Your task to perform on an android device: change your default location settings in chrome Image 0: 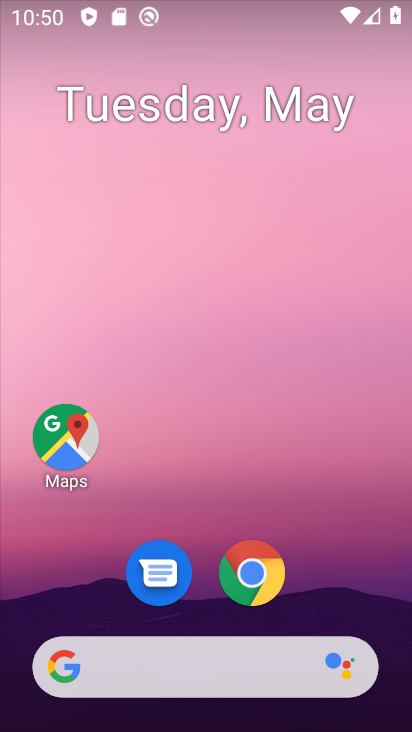
Step 0: click (262, 582)
Your task to perform on an android device: change your default location settings in chrome Image 1: 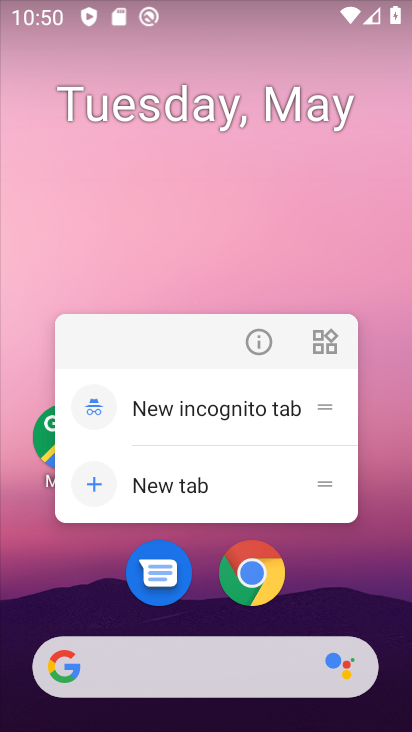
Step 1: click (248, 561)
Your task to perform on an android device: change your default location settings in chrome Image 2: 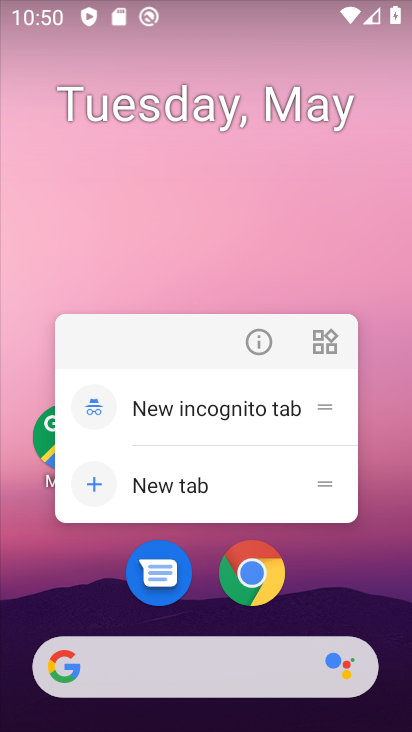
Step 2: click (239, 558)
Your task to perform on an android device: change your default location settings in chrome Image 3: 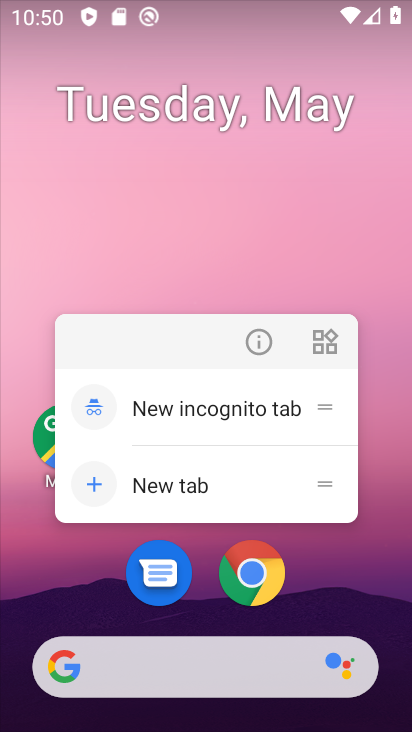
Step 3: click (257, 567)
Your task to perform on an android device: change your default location settings in chrome Image 4: 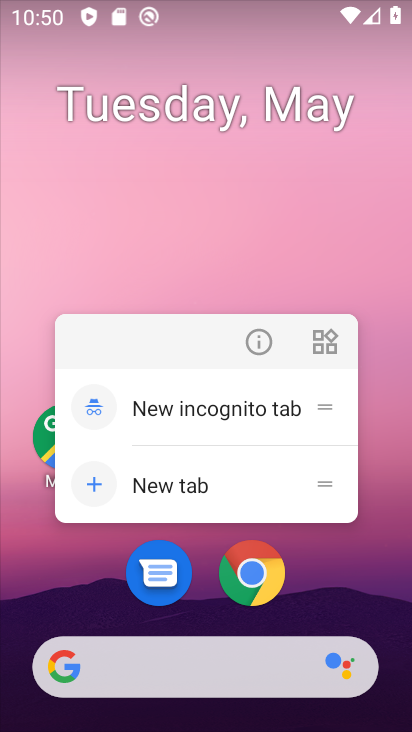
Step 4: click (260, 586)
Your task to perform on an android device: change your default location settings in chrome Image 5: 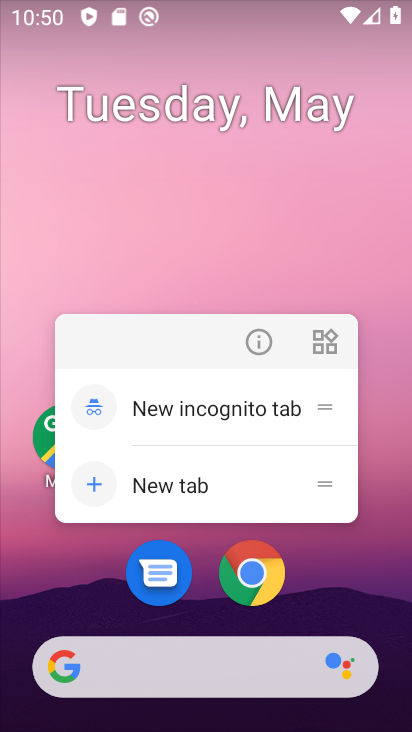
Step 5: click (244, 573)
Your task to perform on an android device: change your default location settings in chrome Image 6: 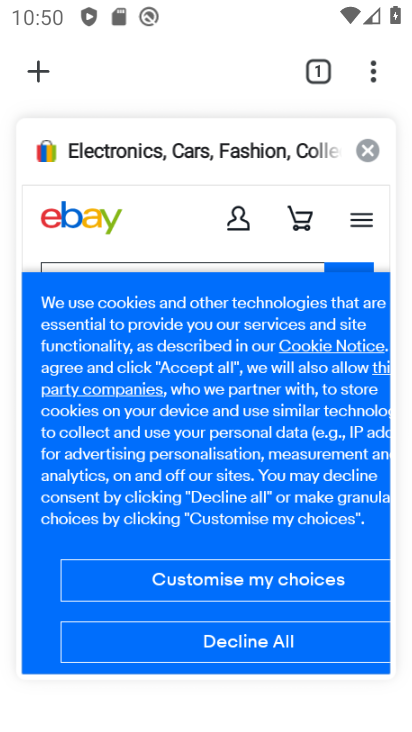
Step 6: click (364, 71)
Your task to perform on an android device: change your default location settings in chrome Image 7: 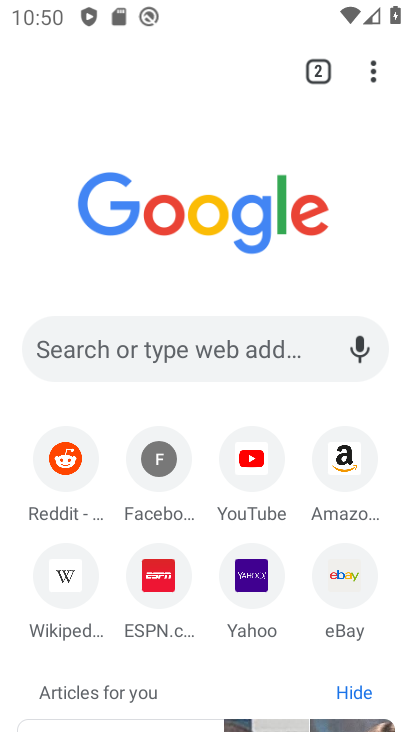
Step 7: click (368, 78)
Your task to perform on an android device: change your default location settings in chrome Image 8: 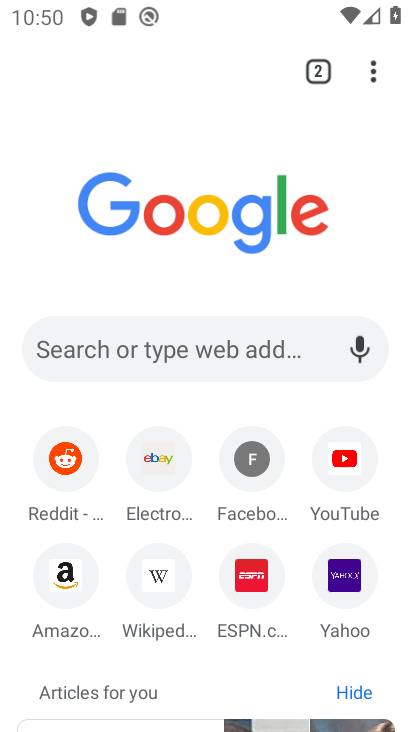
Step 8: click (368, 78)
Your task to perform on an android device: change your default location settings in chrome Image 9: 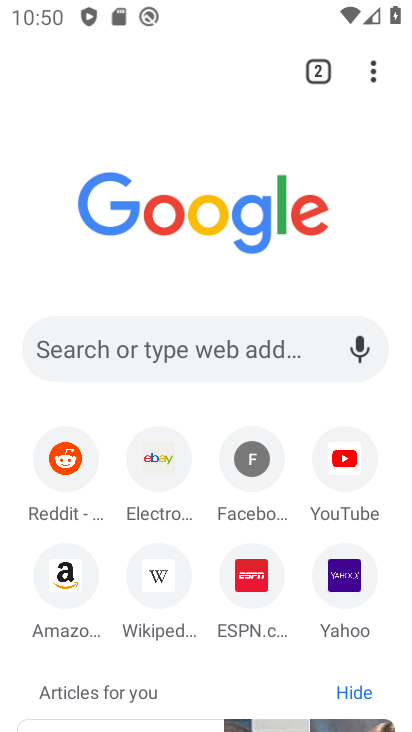
Step 9: click (377, 66)
Your task to perform on an android device: change your default location settings in chrome Image 10: 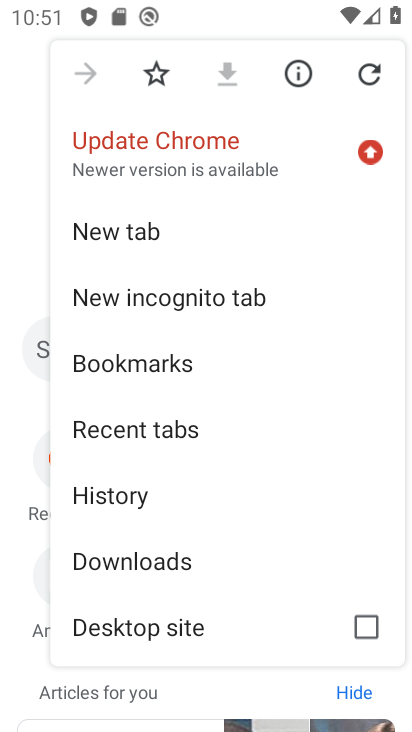
Step 10: drag from (186, 626) to (195, 263)
Your task to perform on an android device: change your default location settings in chrome Image 11: 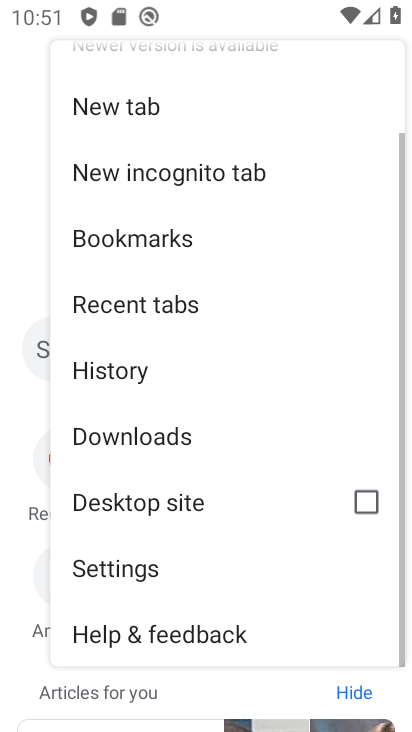
Step 11: click (126, 578)
Your task to perform on an android device: change your default location settings in chrome Image 12: 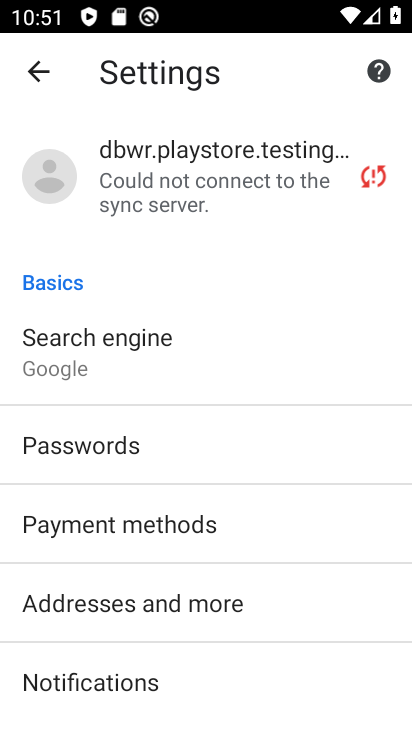
Step 12: drag from (98, 699) to (102, 341)
Your task to perform on an android device: change your default location settings in chrome Image 13: 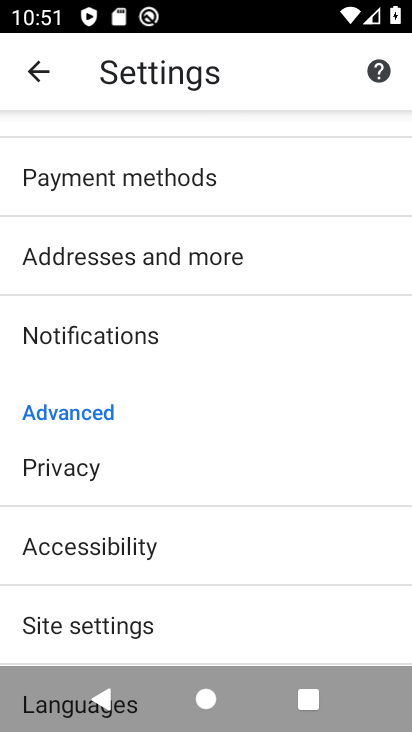
Step 13: click (69, 621)
Your task to perform on an android device: change your default location settings in chrome Image 14: 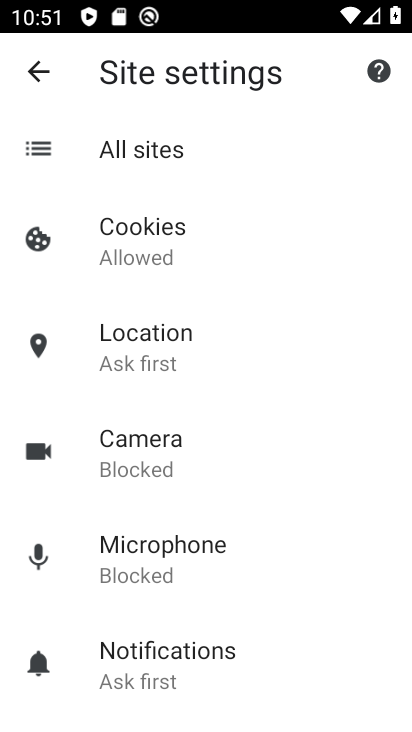
Step 14: click (149, 347)
Your task to perform on an android device: change your default location settings in chrome Image 15: 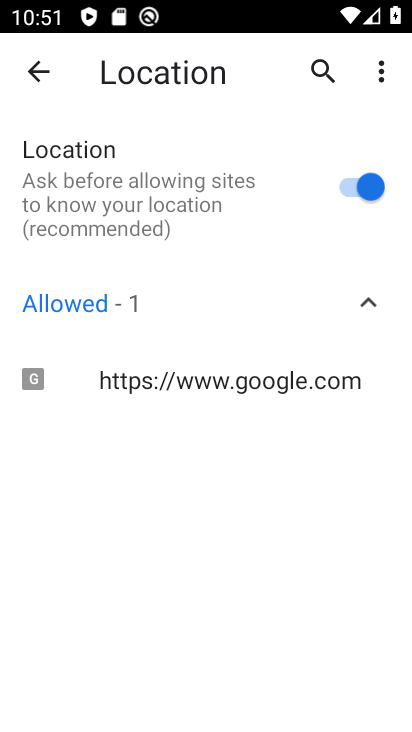
Step 15: click (350, 180)
Your task to perform on an android device: change your default location settings in chrome Image 16: 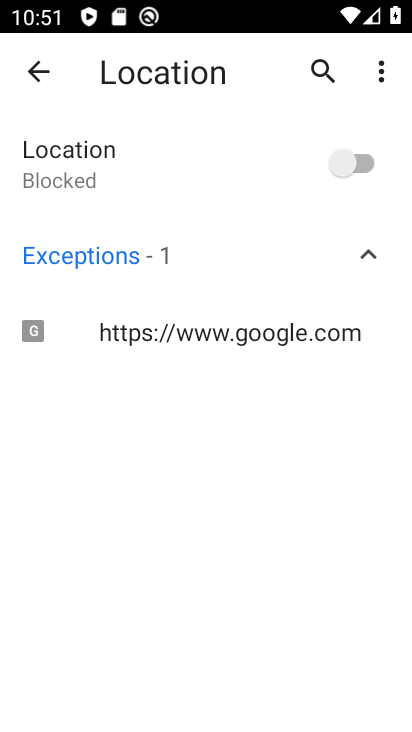
Step 16: task complete